Your task to perform on an android device: Show me the alarms in the clock app Image 0: 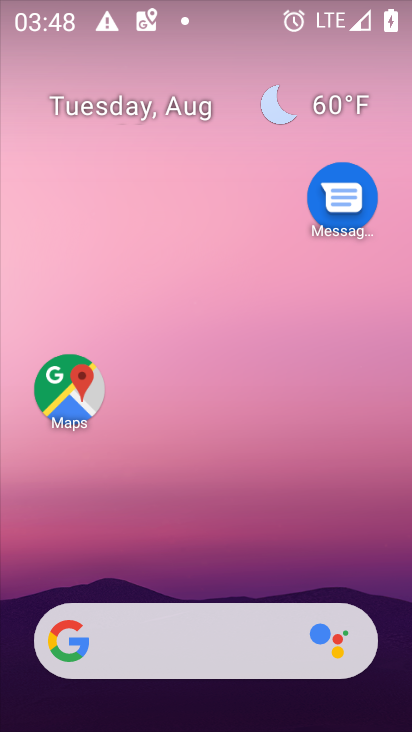
Step 0: drag from (154, 593) to (125, 79)
Your task to perform on an android device: Show me the alarms in the clock app Image 1: 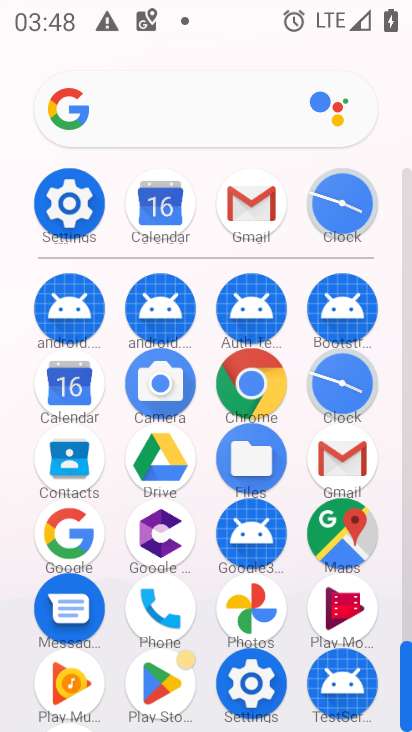
Step 1: click (343, 191)
Your task to perform on an android device: Show me the alarms in the clock app Image 2: 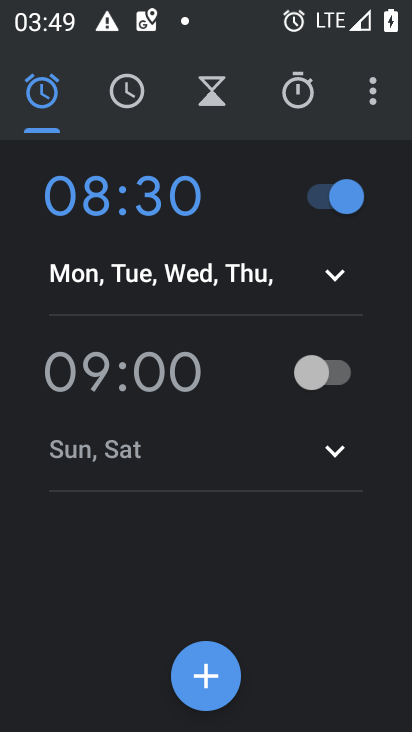
Step 2: task complete